Your task to perform on an android device: Open calendar and show me the third week of next month Image 0: 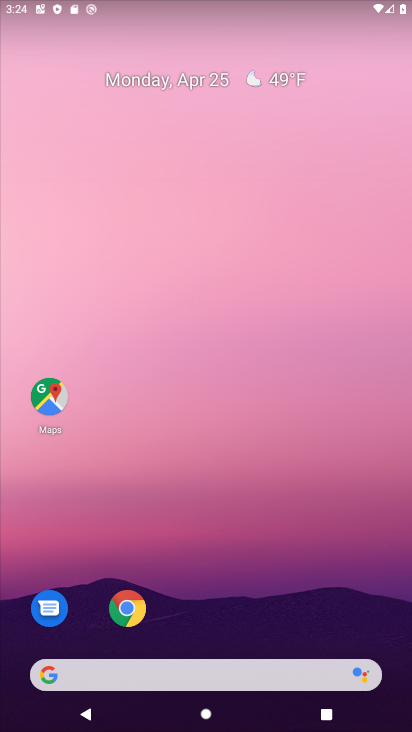
Step 0: click (399, 95)
Your task to perform on an android device: Open calendar and show me the third week of next month Image 1: 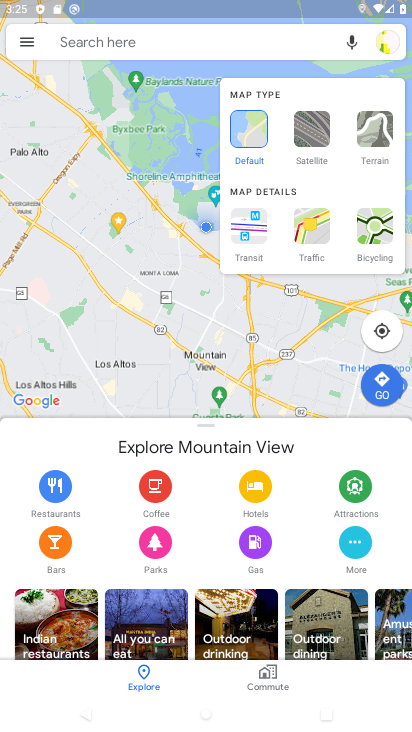
Step 1: press home button
Your task to perform on an android device: Open calendar and show me the third week of next month Image 2: 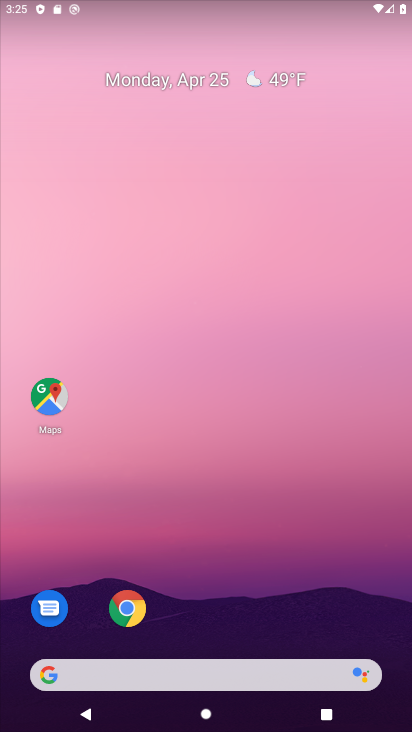
Step 2: drag from (216, 592) to (264, 84)
Your task to perform on an android device: Open calendar and show me the third week of next month Image 3: 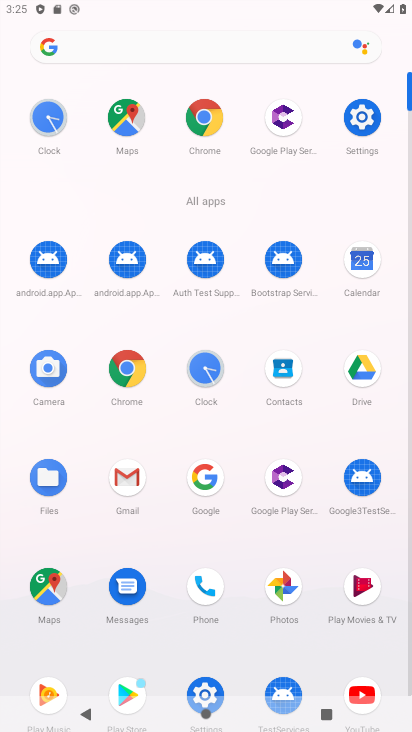
Step 3: click (359, 272)
Your task to perform on an android device: Open calendar and show me the third week of next month Image 4: 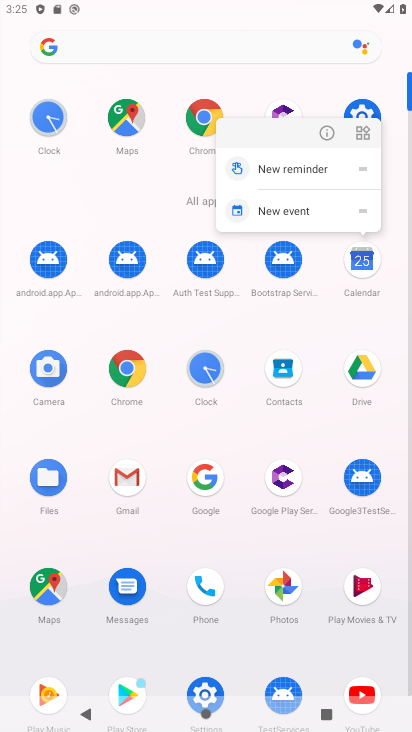
Step 4: click (371, 266)
Your task to perform on an android device: Open calendar and show me the third week of next month Image 5: 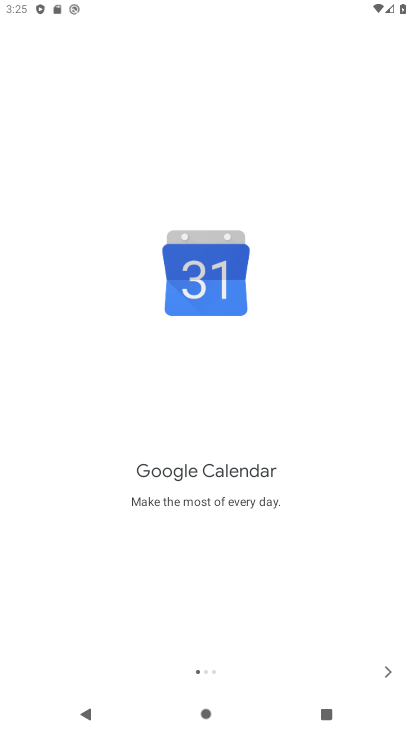
Step 5: click (384, 673)
Your task to perform on an android device: Open calendar and show me the third week of next month Image 6: 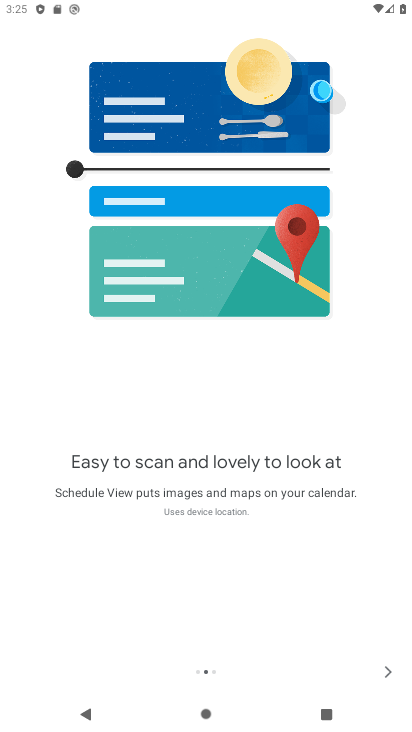
Step 6: click (384, 673)
Your task to perform on an android device: Open calendar and show me the third week of next month Image 7: 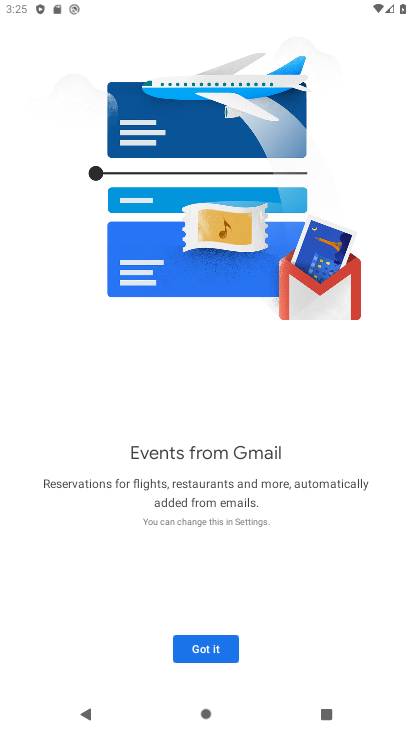
Step 7: click (226, 654)
Your task to perform on an android device: Open calendar and show me the third week of next month Image 8: 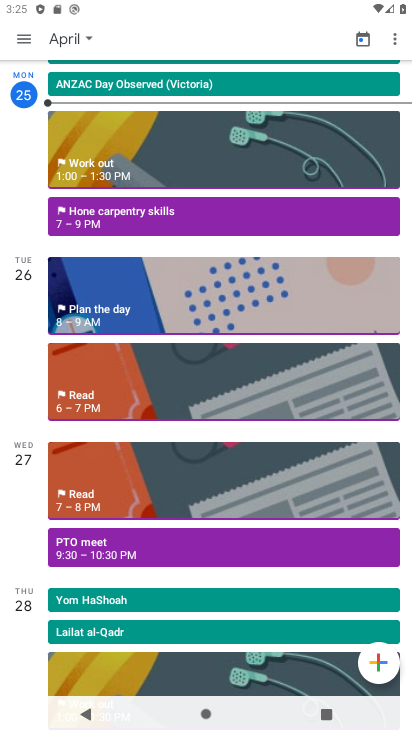
Step 8: click (84, 37)
Your task to perform on an android device: Open calendar and show me the third week of next month Image 9: 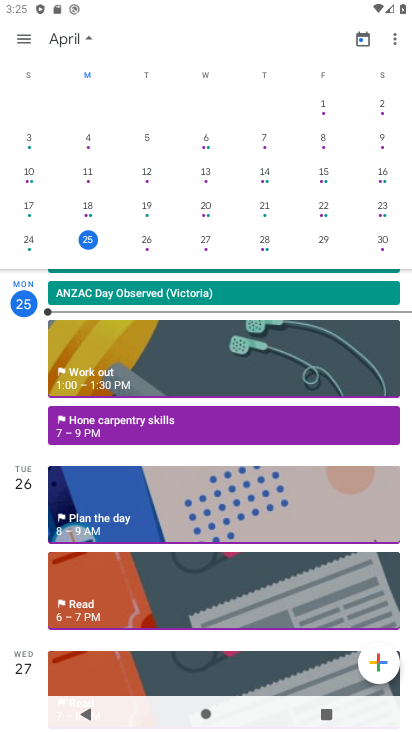
Step 9: drag from (397, 156) to (110, 187)
Your task to perform on an android device: Open calendar and show me the third week of next month Image 10: 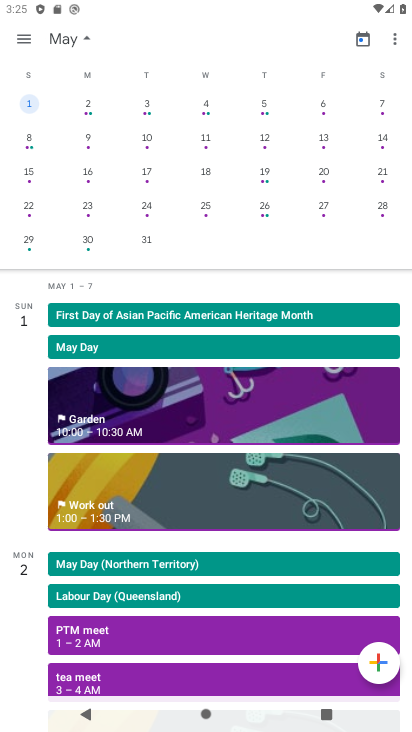
Step 10: click (39, 172)
Your task to perform on an android device: Open calendar and show me the third week of next month Image 11: 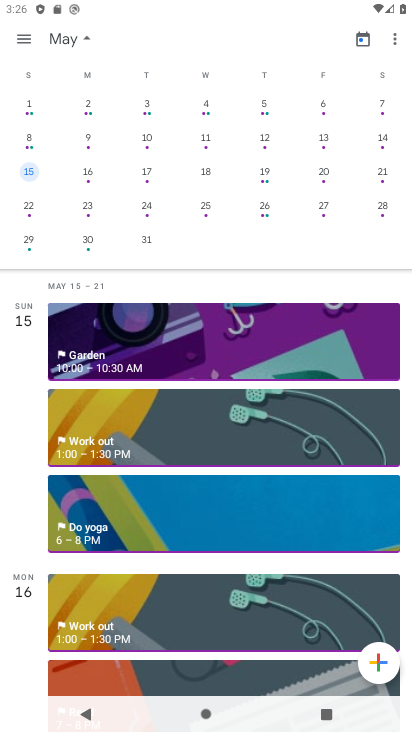
Step 11: task complete